Your task to perform on an android device: Open privacy settings Image 0: 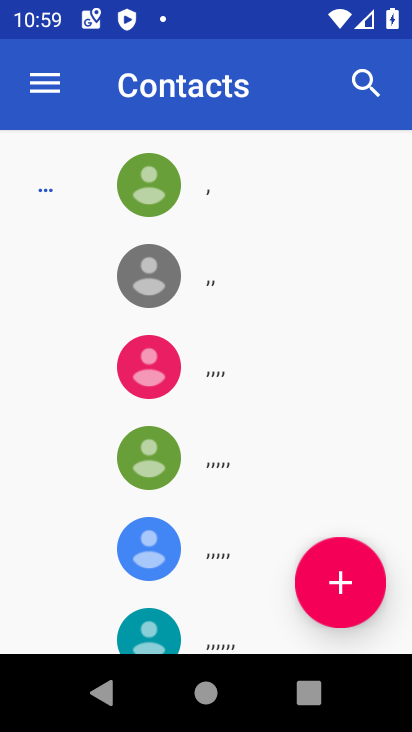
Step 0: press home button
Your task to perform on an android device: Open privacy settings Image 1: 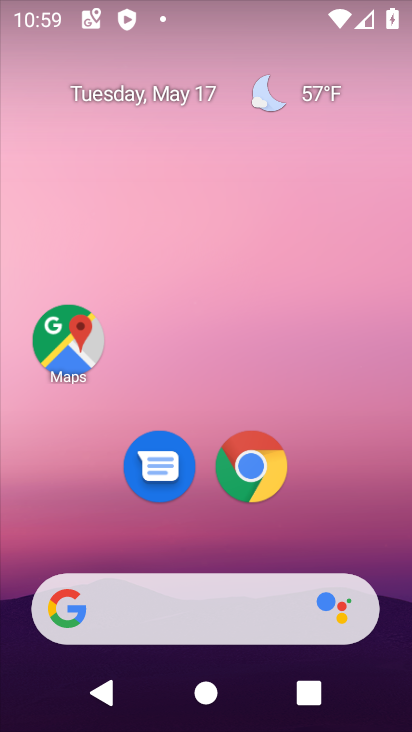
Step 1: drag from (183, 579) to (255, 2)
Your task to perform on an android device: Open privacy settings Image 2: 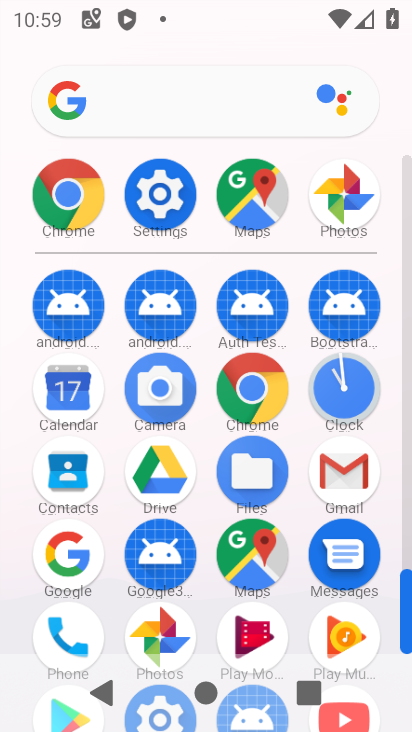
Step 2: click (147, 201)
Your task to perform on an android device: Open privacy settings Image 3: 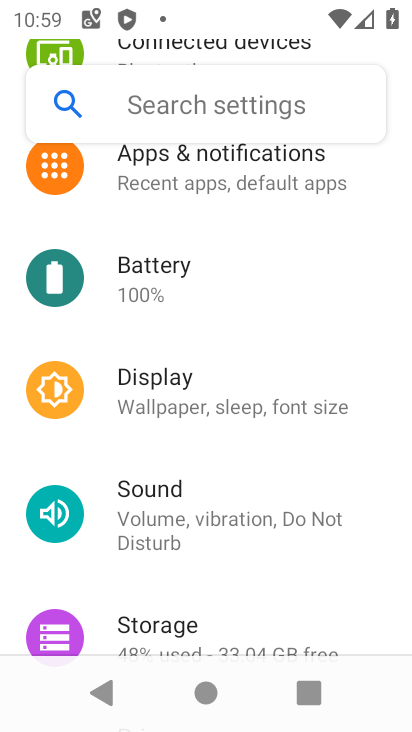
Step 3: drag from (191, 535) to (183, 189)
Your task to perform on an android device: Open privacy settings Image 4: 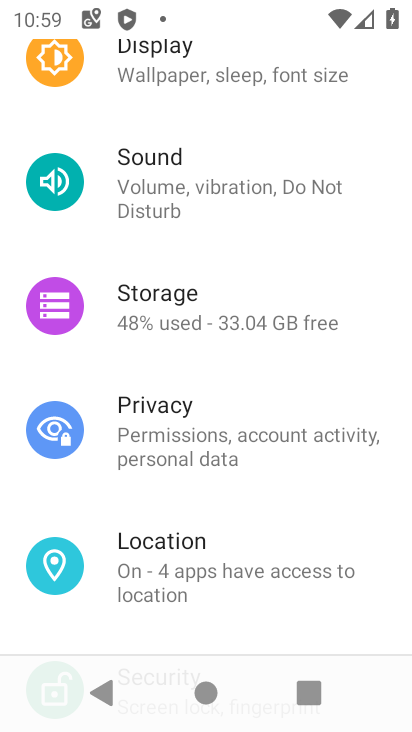
Step 4: click (172, 395)
Your task to perform on an android device: Open privacy settings Image 5: 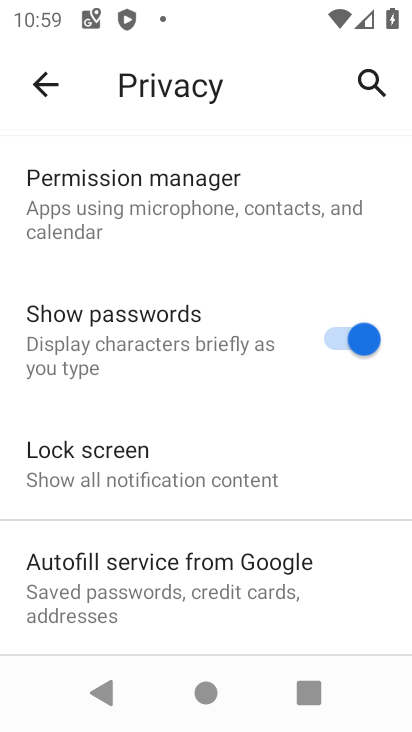
Step 5: task complete